Your task to perform on an android device: What's the weather like inToronto? Image 0: 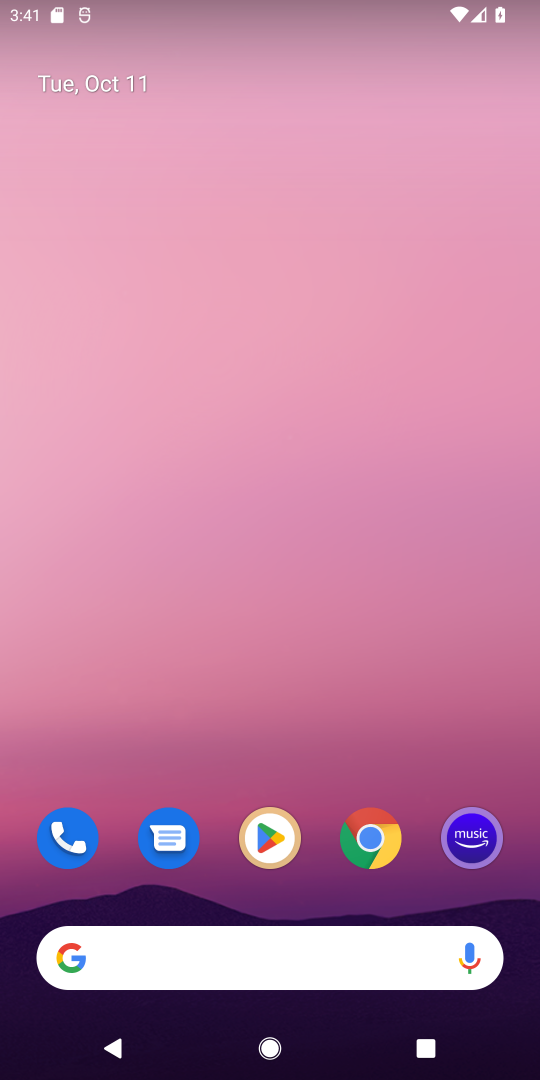
Step 0: click (369, 833)
Your task to perform on an android device: What's the weather like inToronto? Image 1: 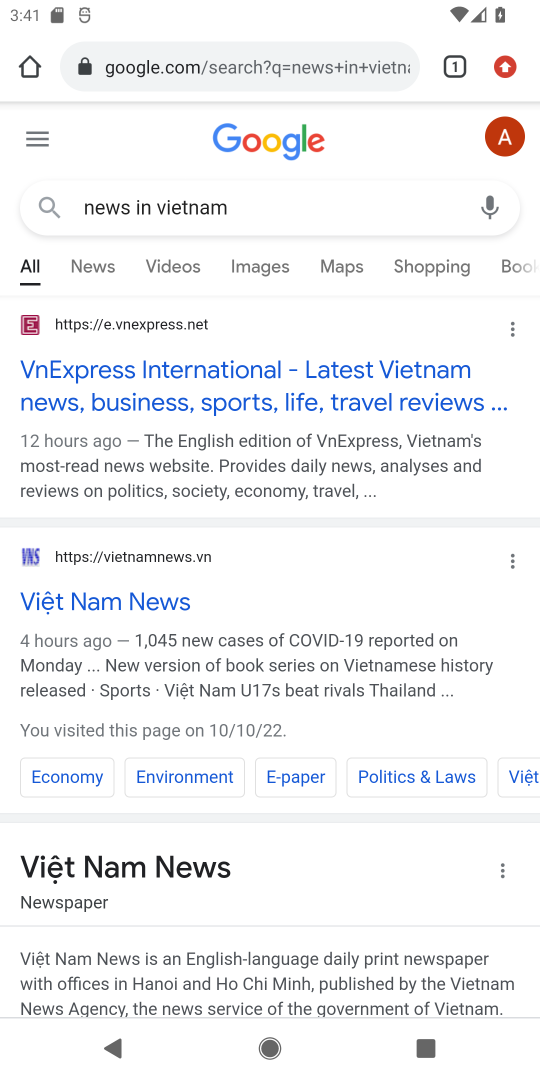
Step 1: click (229, 65)
Your task to perform on an android device: What's the weather like inToronto? Image 2: 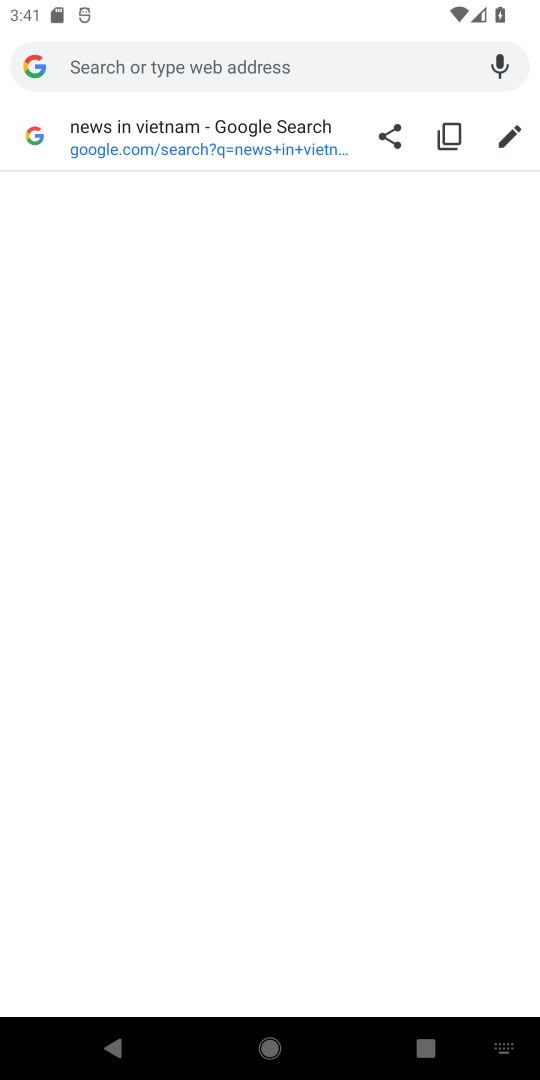
Step 2: type "weather like in toronto"
Your task to perform on an android device: What's the weather like inToronto? Image 3: 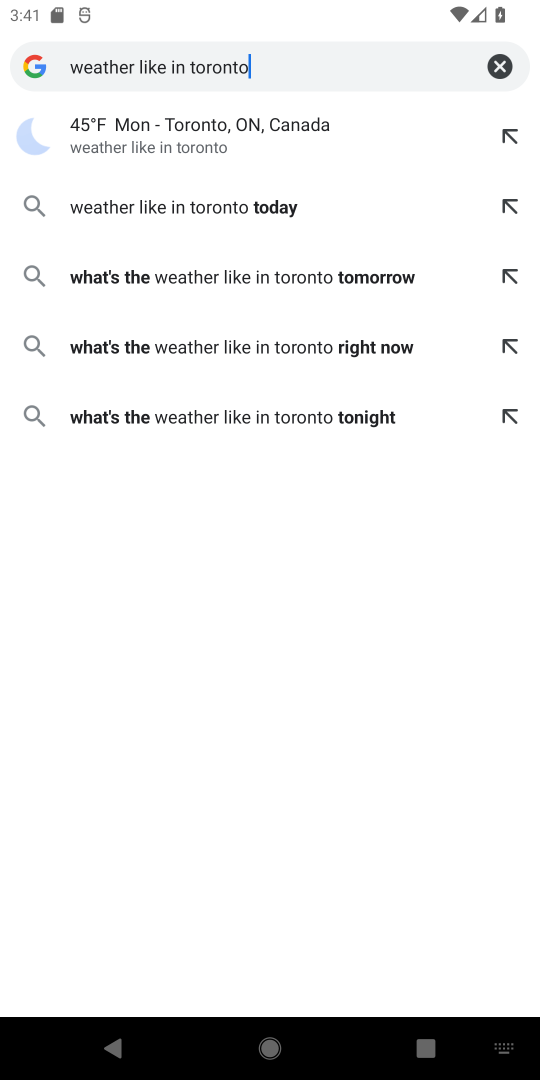
Step 3: click (202, 199)
Your task to perform on an android device: What's the weather like inToronto? Image 4: 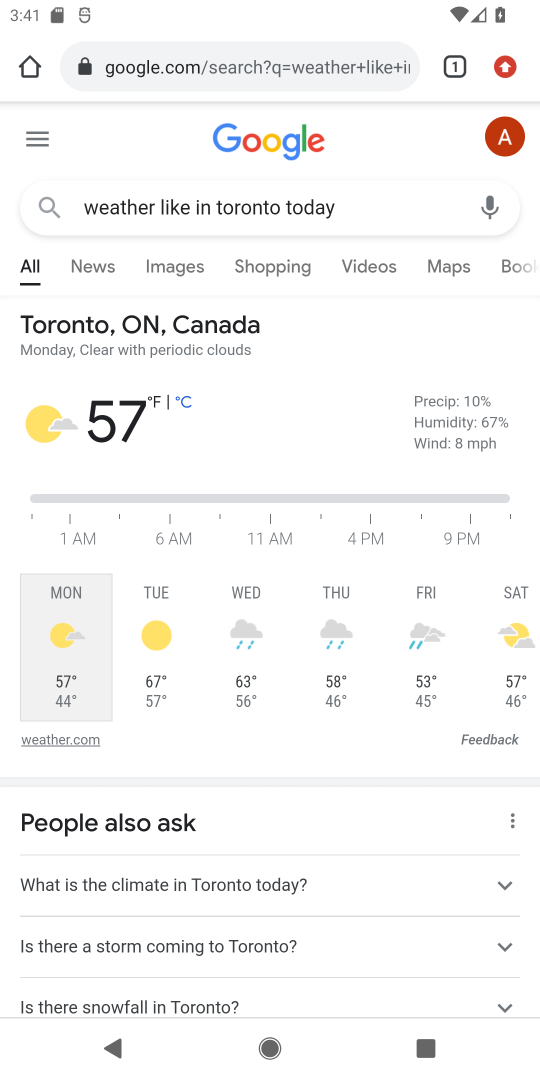
Step 4: drag from (212, 739) to (212, 556)
Your task to perform on an android device: What's the weather like inToronto? Image 5: 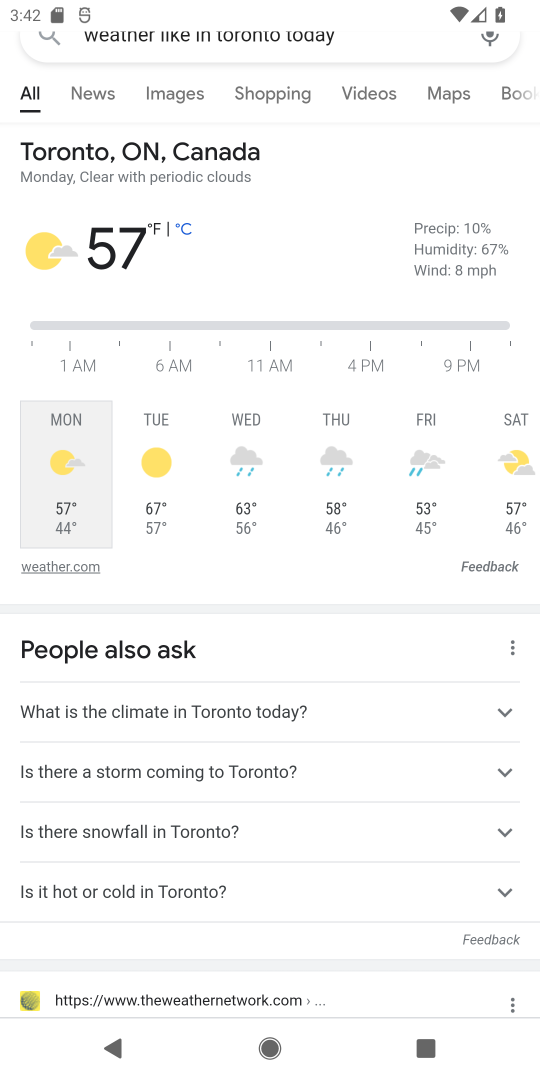
Step 5: click (155, 708)
Your task to perform on an android device: What's the weather like inToronto? Image 6: 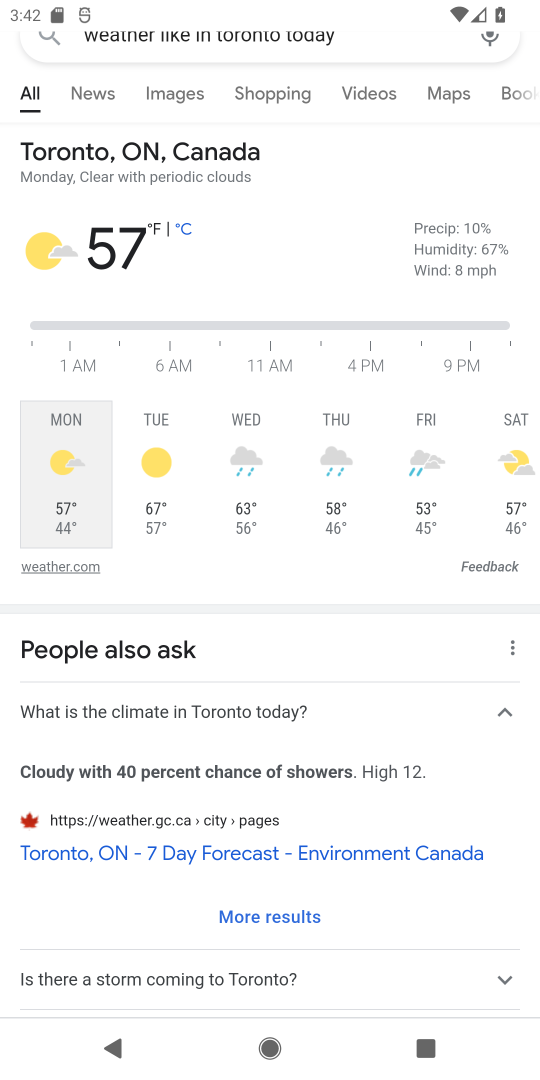
Step 6: drag from (315, 778) to (331, 437)
Your task to perform on an android device: What's the weather like inToronto? Image 7: 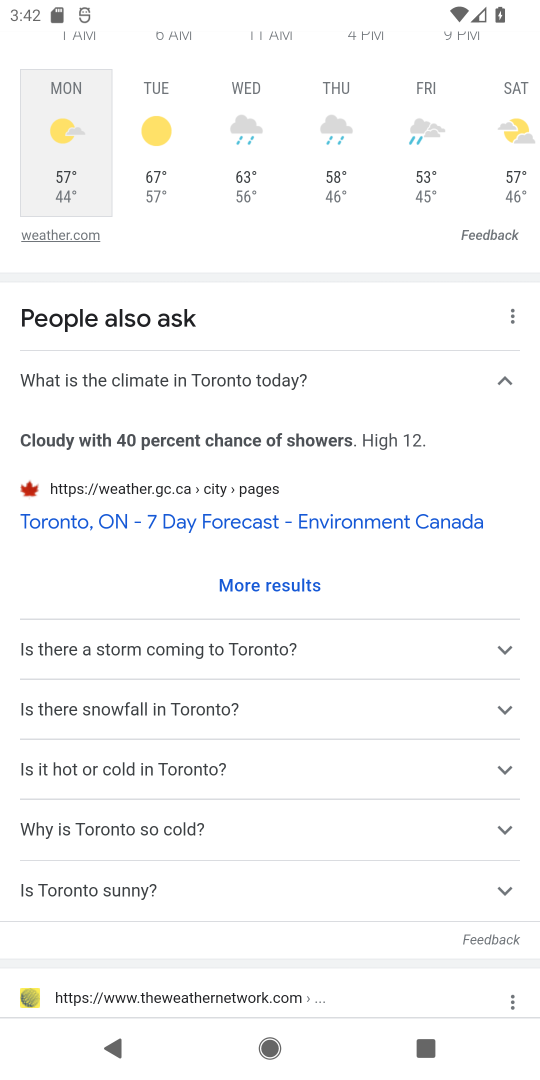
Step 7: drag from (285, 745) to (285, 525)
Your task to perform on an android device: What's the weather like inToronto? Image 8: 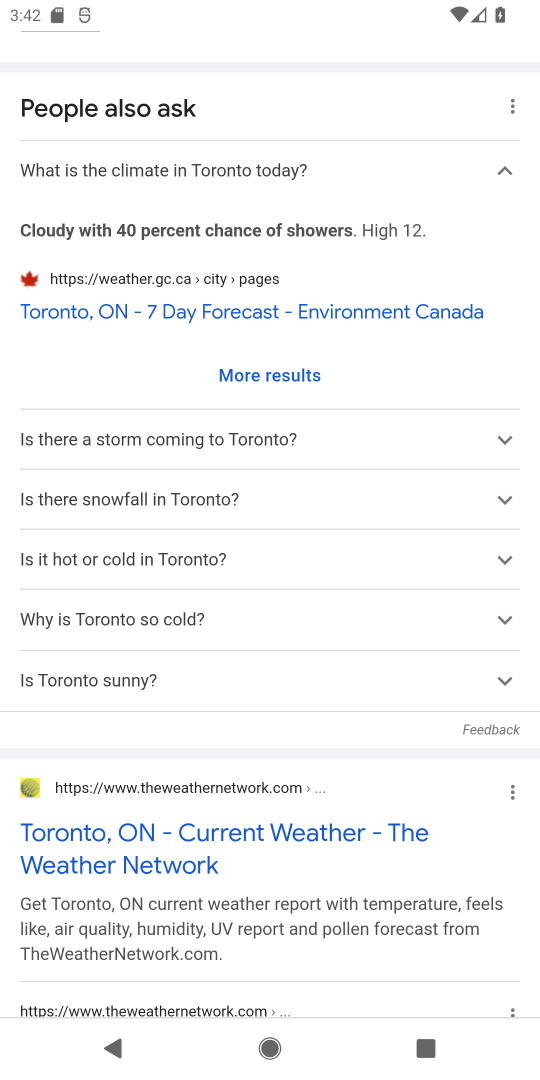
Step 8: click (63, 826)
Your task to perform on an android device: What's the weather like inToronto? Image 9: 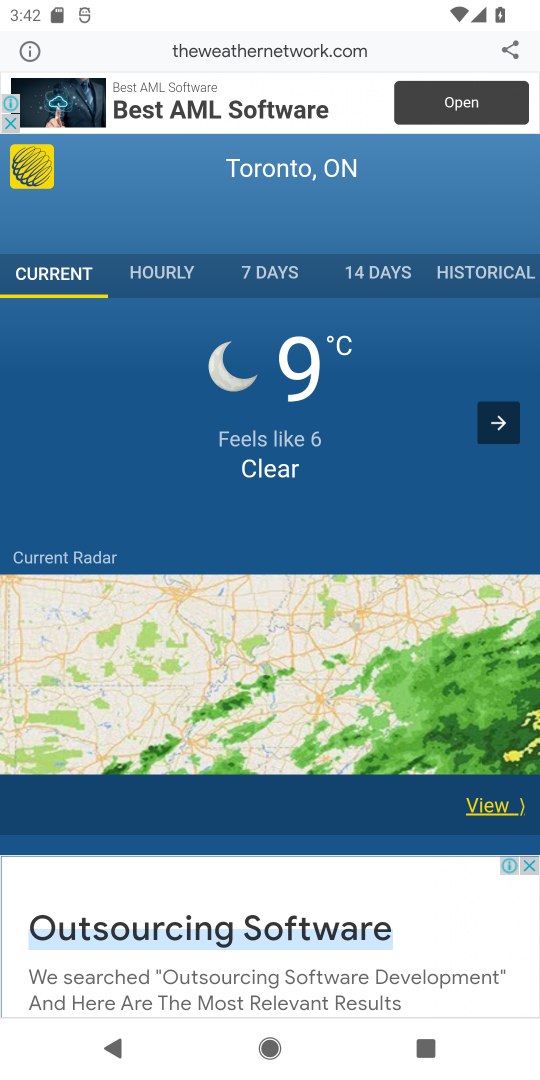
Step 9: drag from (195, 852) to (218, 349)
Your task to perform on an android device: What's the weather like inToronto? Image 10: 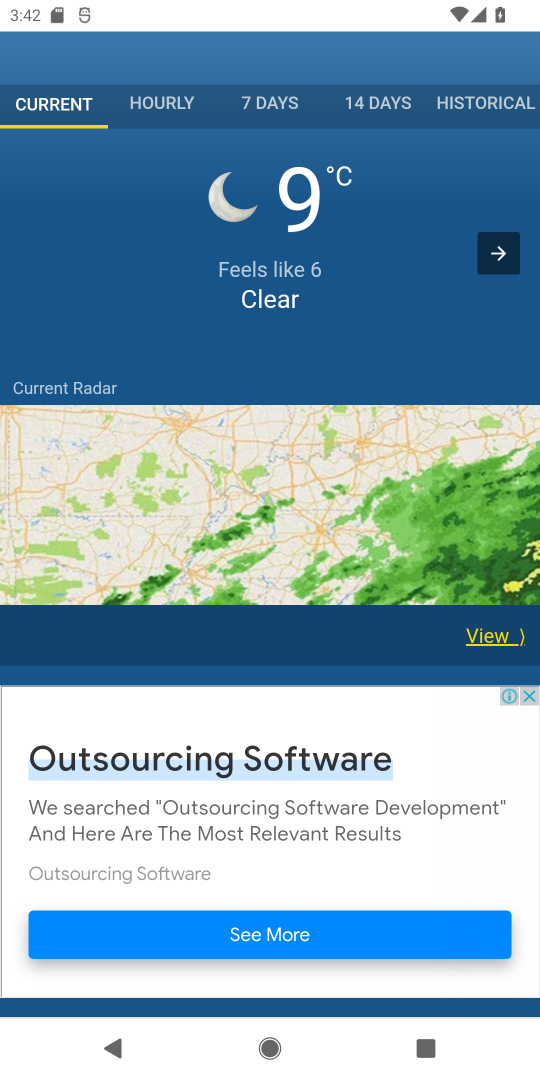
Step 10: click (526, 702)
Your task to perform on an android device: What's the weather like inToronto? Image 11: 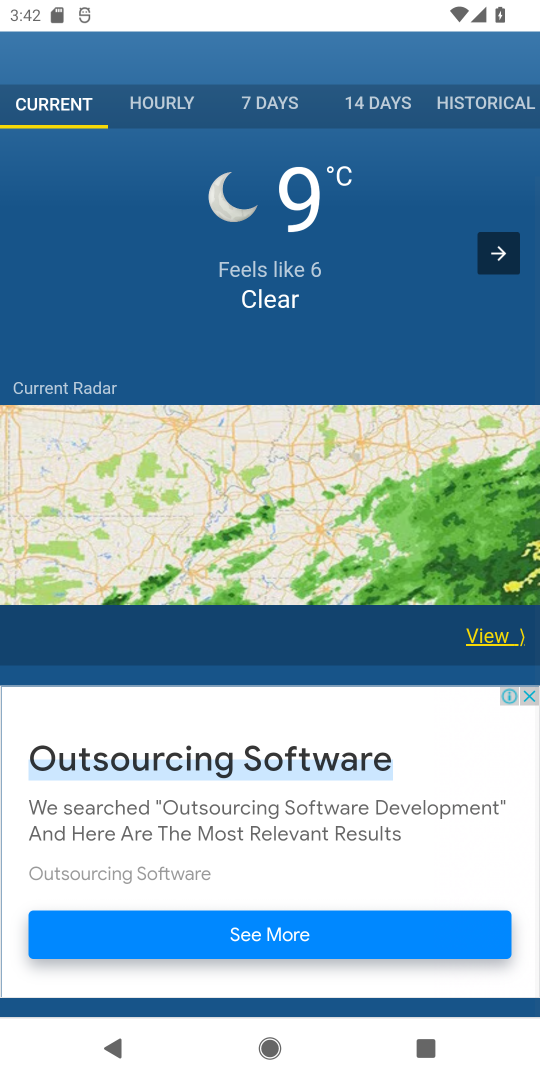
Step 11: click (530, 698)
Your task to perform on an android device: What's the weather like inToronto? Image 12: 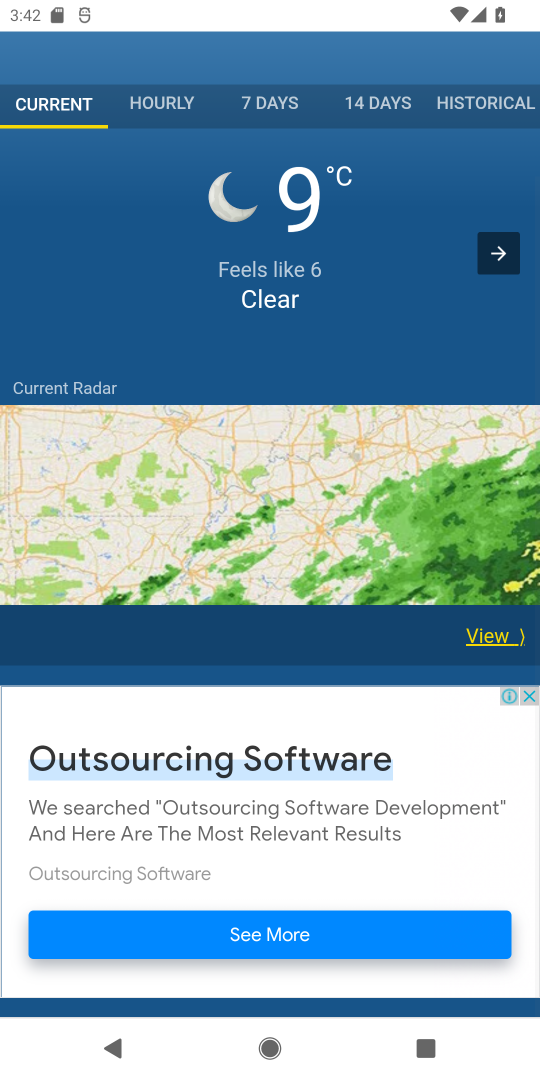
Step 12: click (530, 698)
Your task to perform on an android device: What's the weather like inToronto? Image 13: 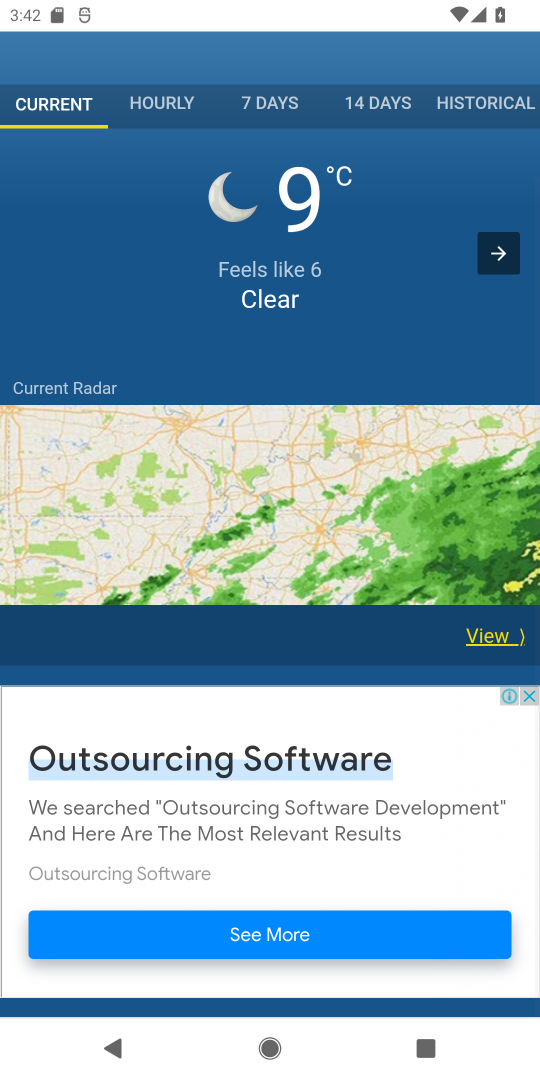
Step 13: click (527, 699)
Your task to perform on an android device: What's the weather like inToronto? Image 14: 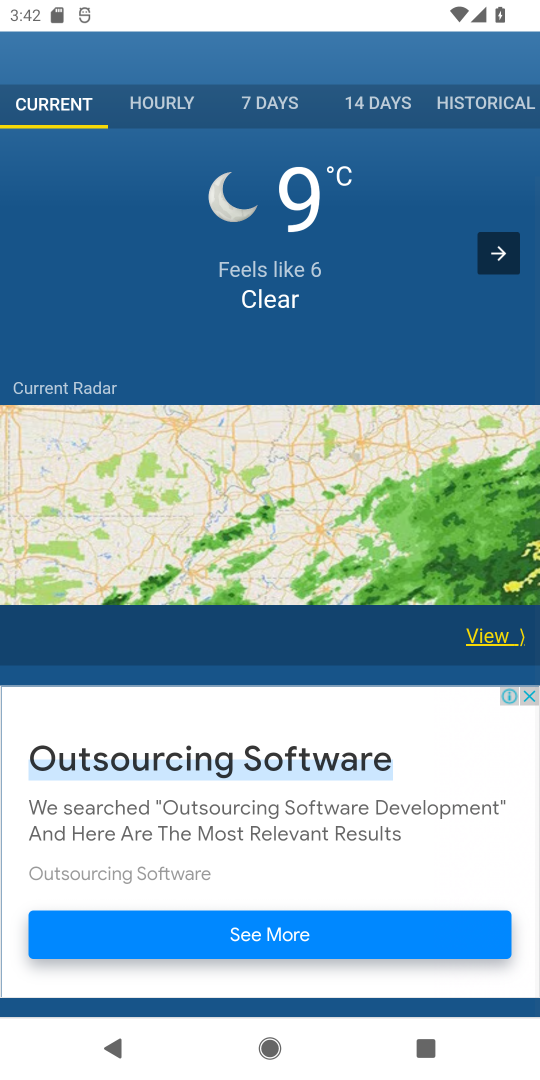
Step 14: click (527, 699)
Your task to perform on an android device: What's the weather like inToronto? Image 15: 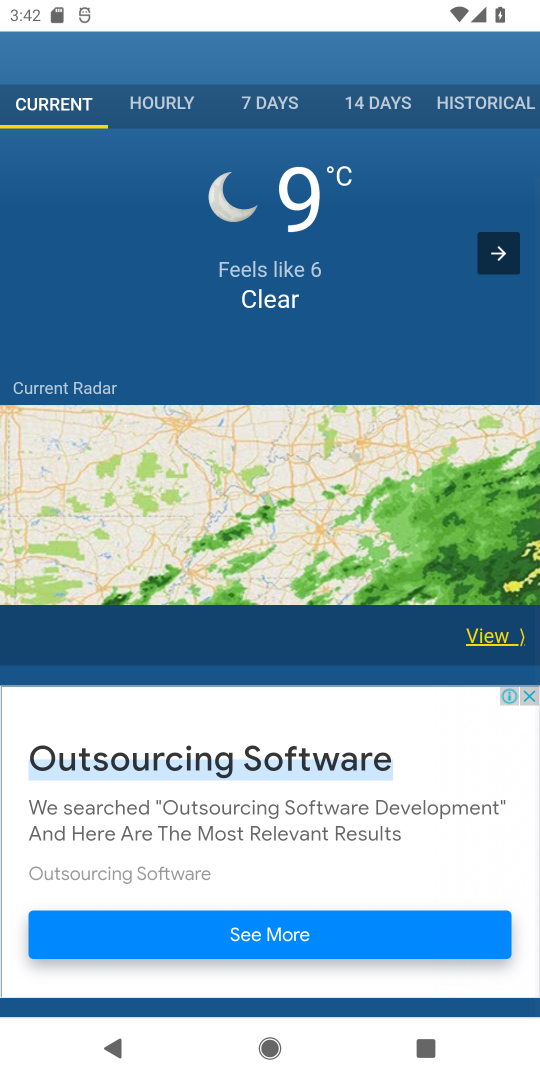
Step 15: drag from (258, 502) to (294, 306)
Your task to perform on an android device: What's the weather like inToronto? Image 16: 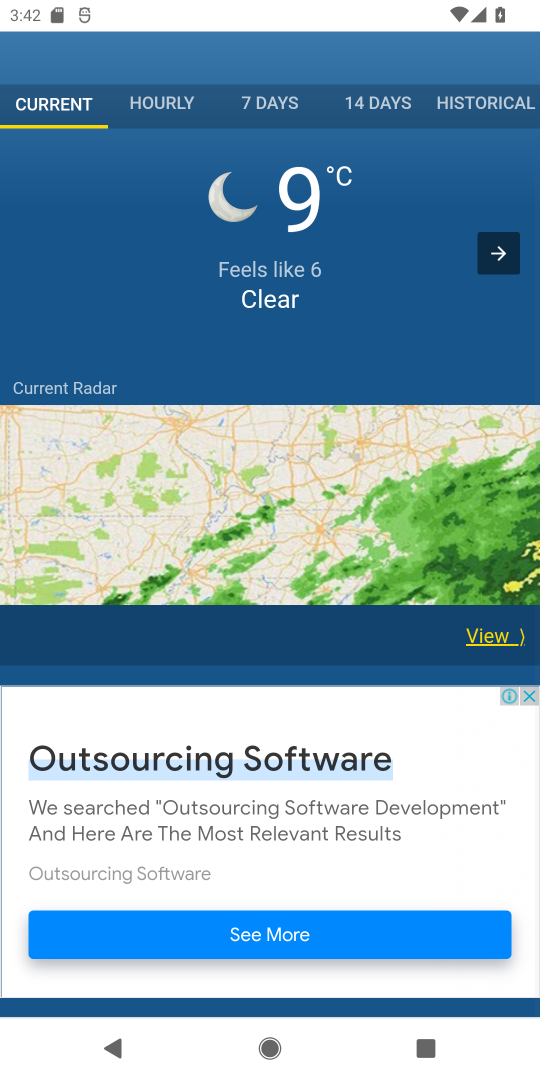
Step 16: click (301, 542)
Your task to perform on an android device: What's the weather like inToronto? Image 17: 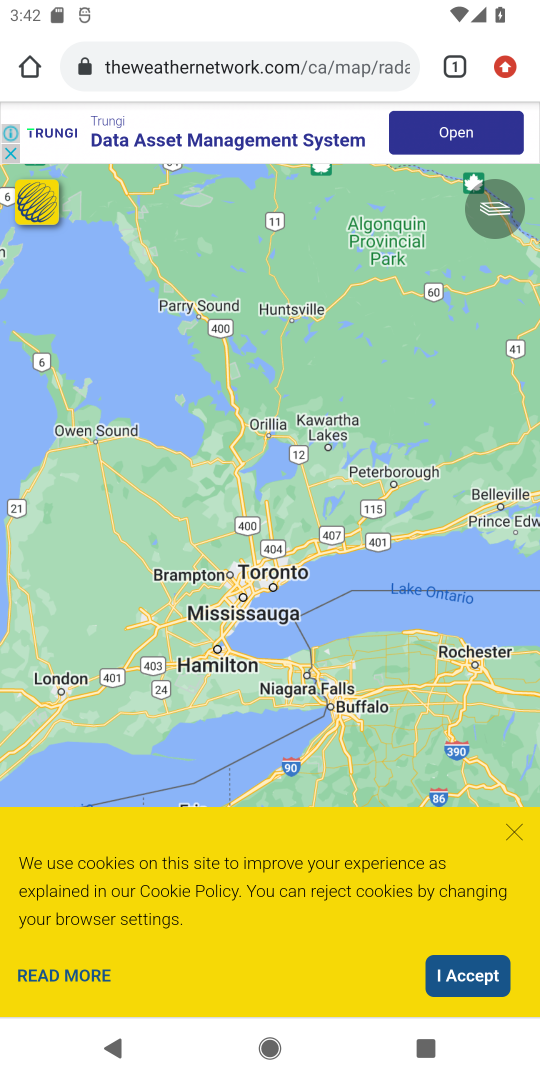
Step 17: drag from (193, 433) to (214, 862)
Your task to perform on an android device: What's the weather like inToronto? Image 18: 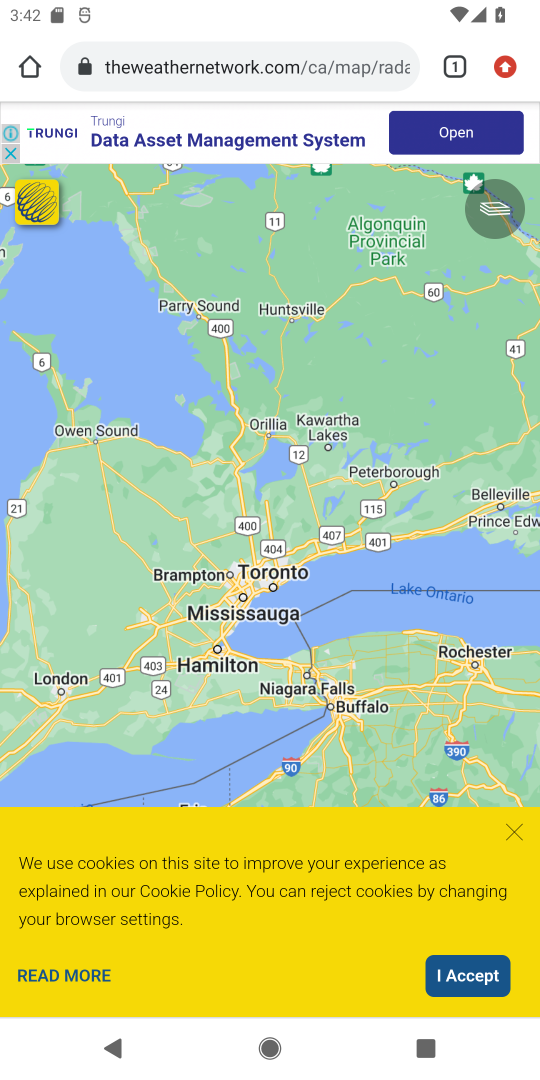
Step 18: click (514, 830)
Your task to perform on an android device: What's the weather like inToronto? Image 19: 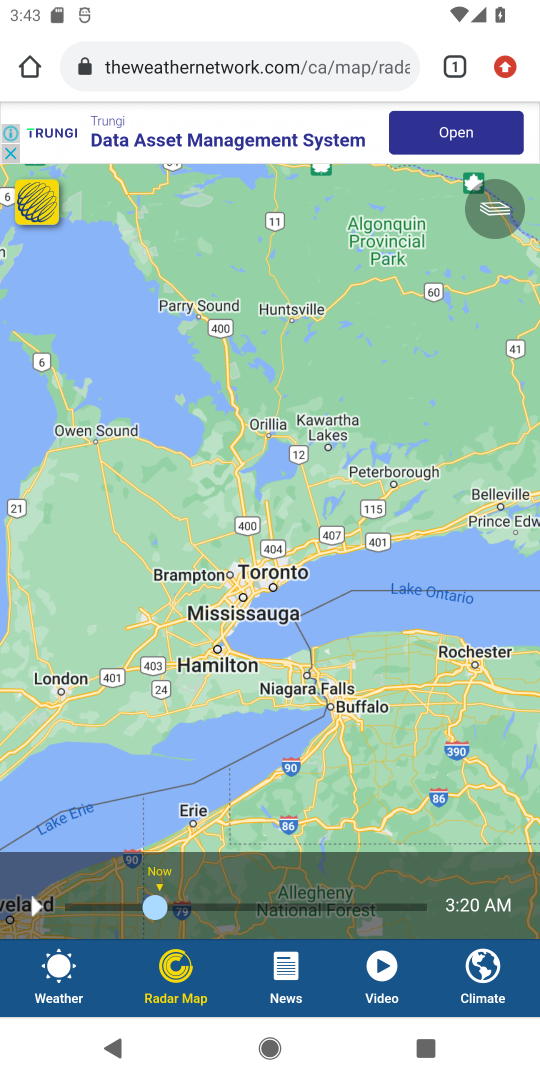
Step 19: click (250, 671)
Your task to perform on an android device: What's the weather like inToronto? Image 20: 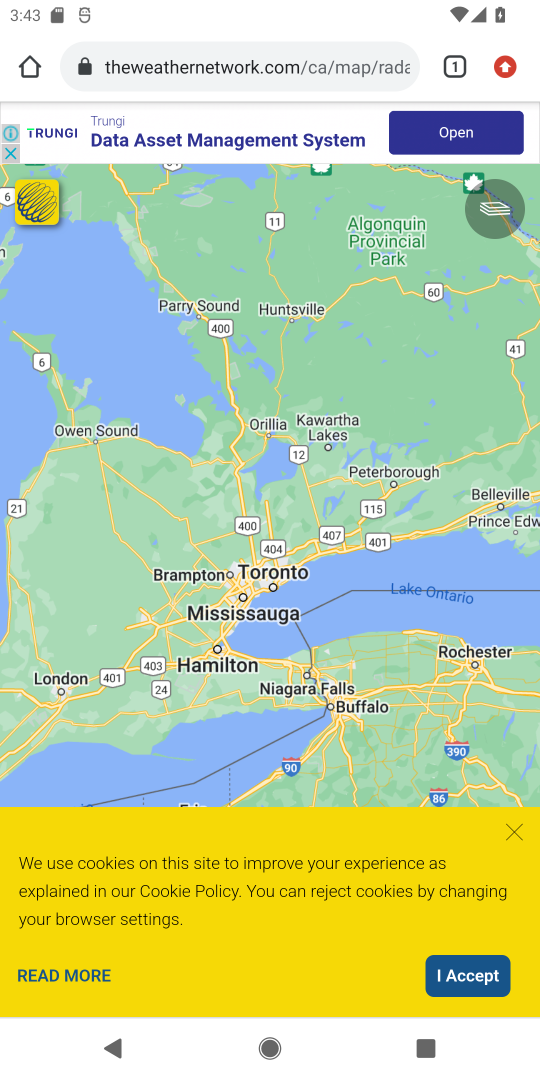
Step 20: task complete